Your task to perform on an android device: What's the weather like in Los Angeles? Image 0: 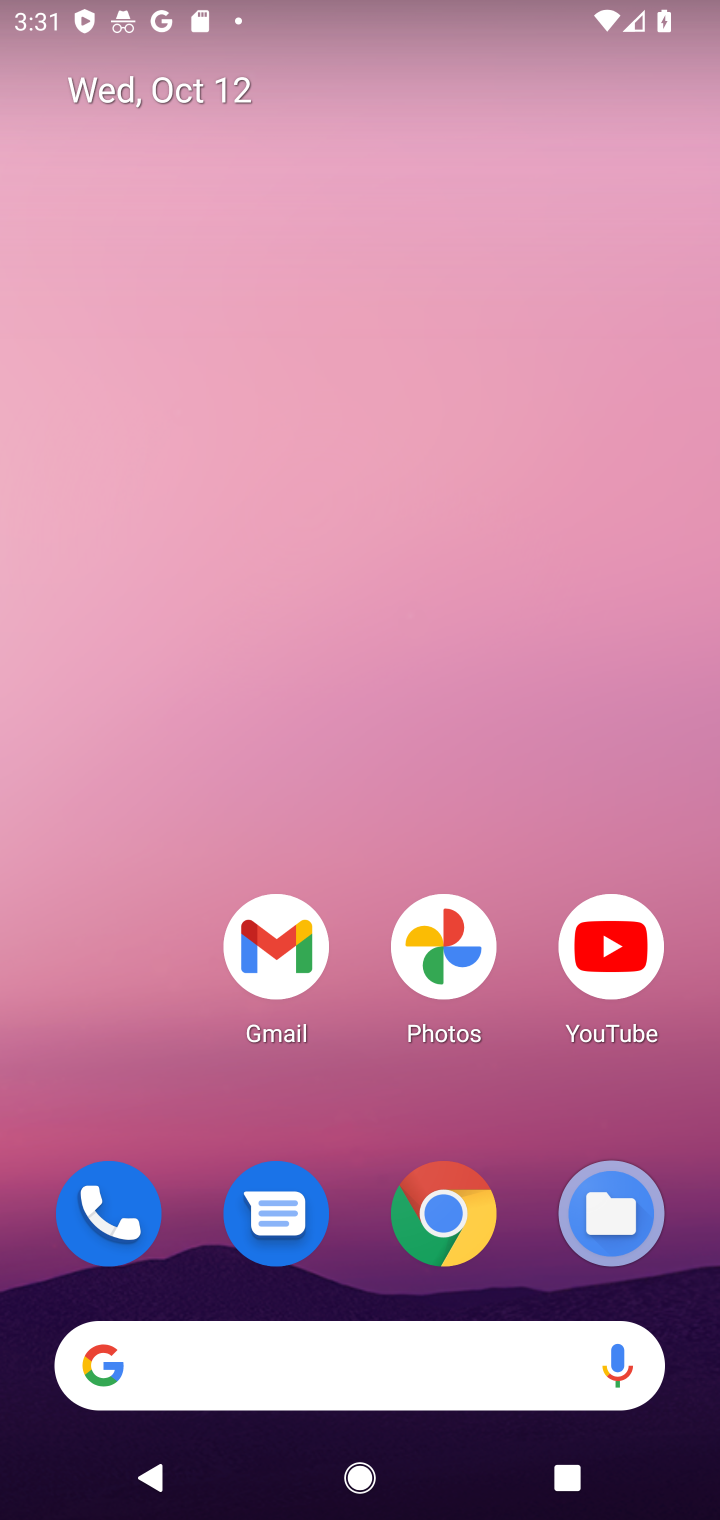
Step 0: click (395, 1382)
Your task to perform on an android device: What's the weather like in Los Angeles? Image 1: 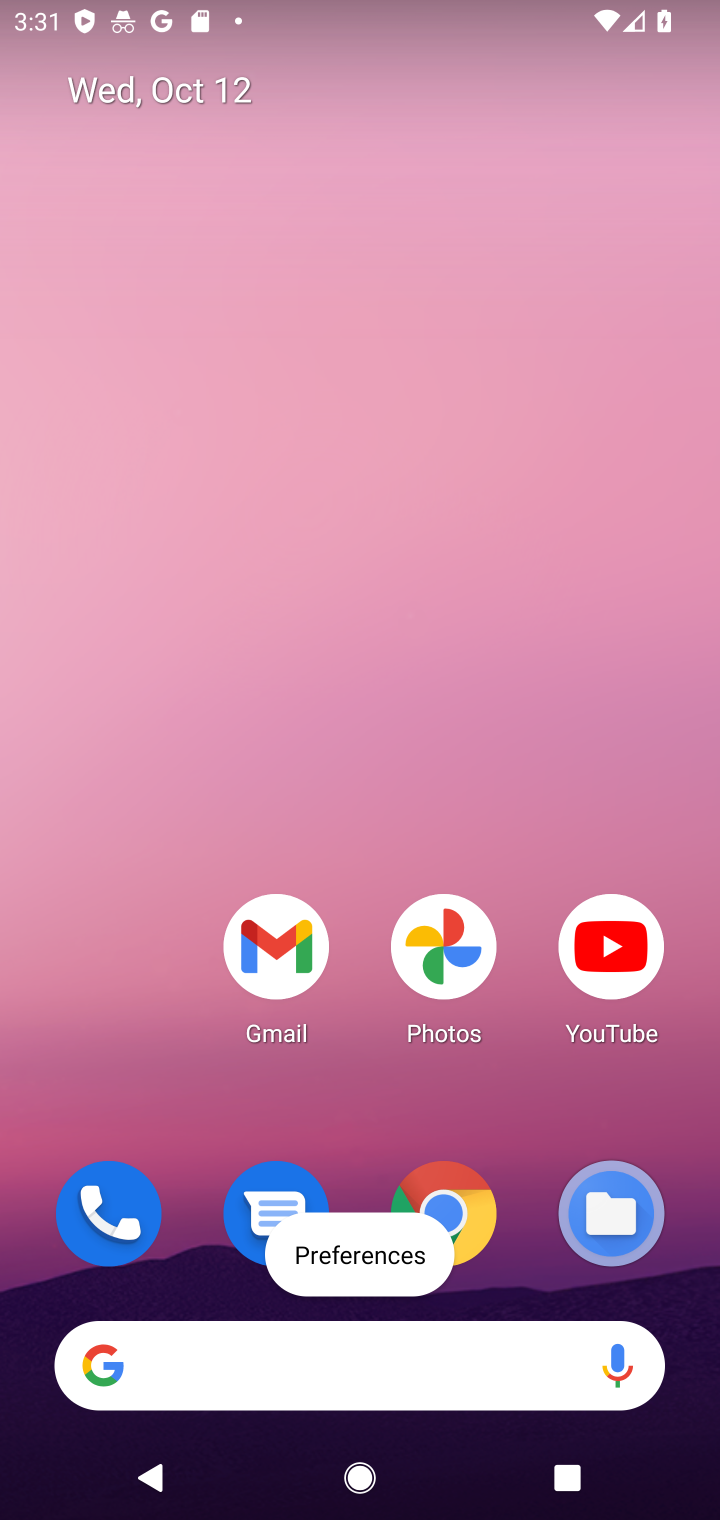
Step 1: click (322, 1375)
Your task to perform on an android device: What's the weather like in Los Angeles? Image 2: 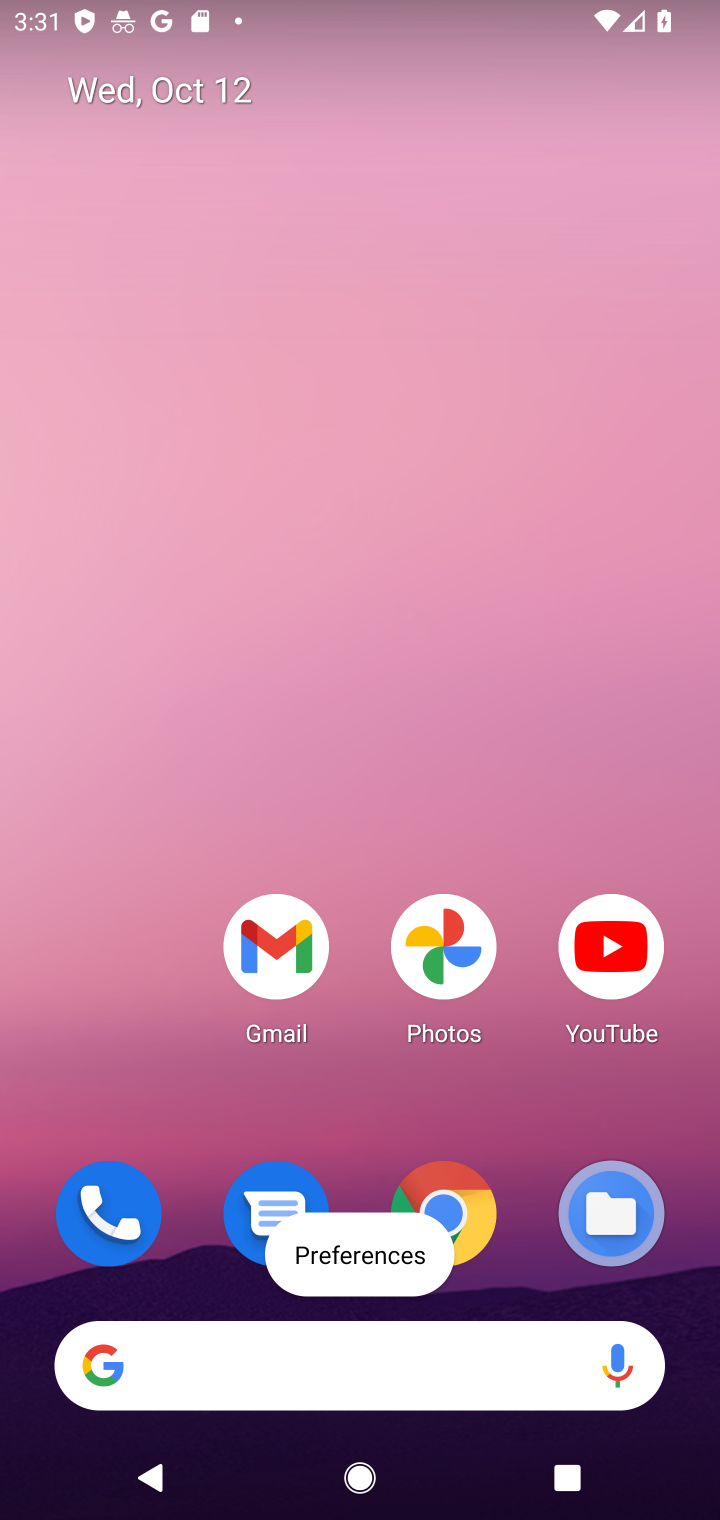
Step 2: click (249, 1375)
Your task to perform on an android device: What's the weather like in Los Angeles? Image 3: 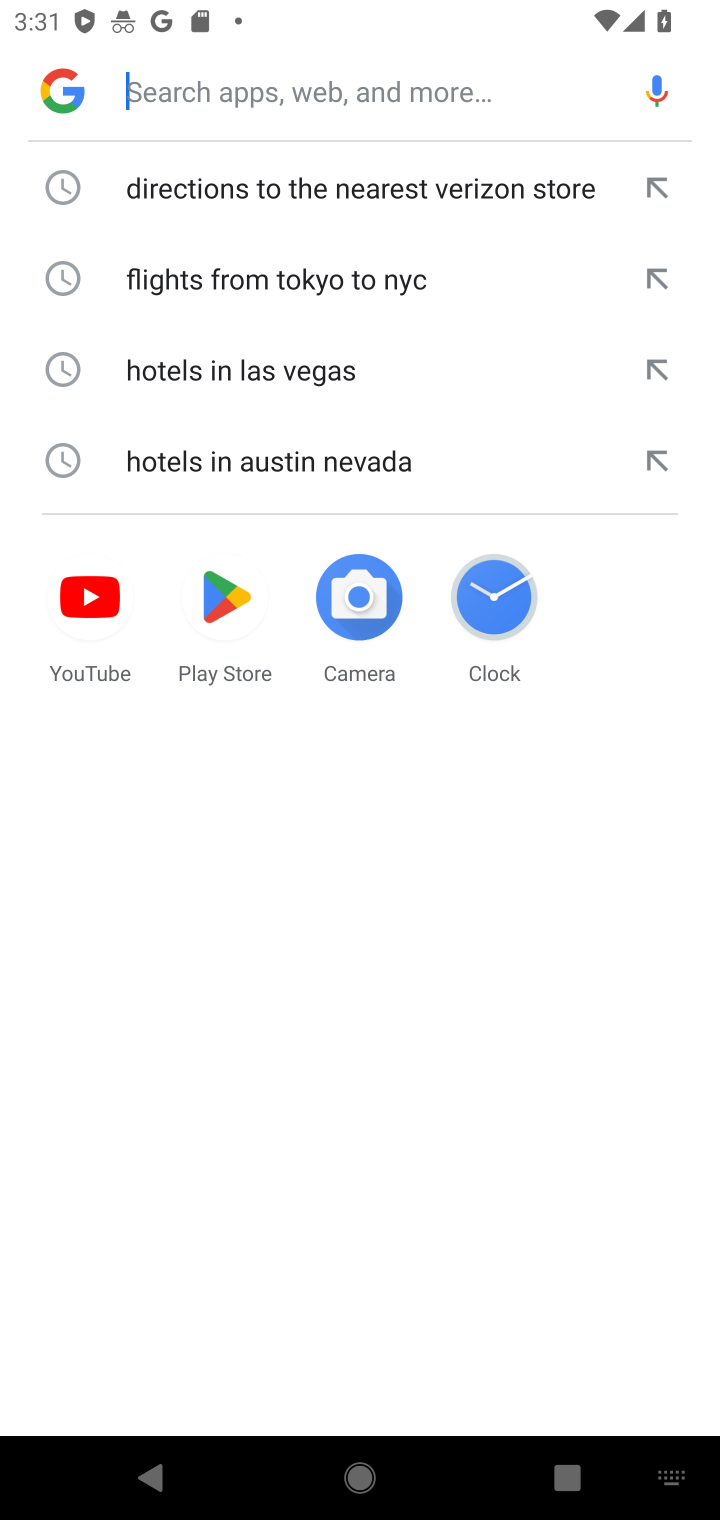
Step 3: click (158, 93)
Your task to perform on an android device: What's the weather like in Los Angeles? Image 4: 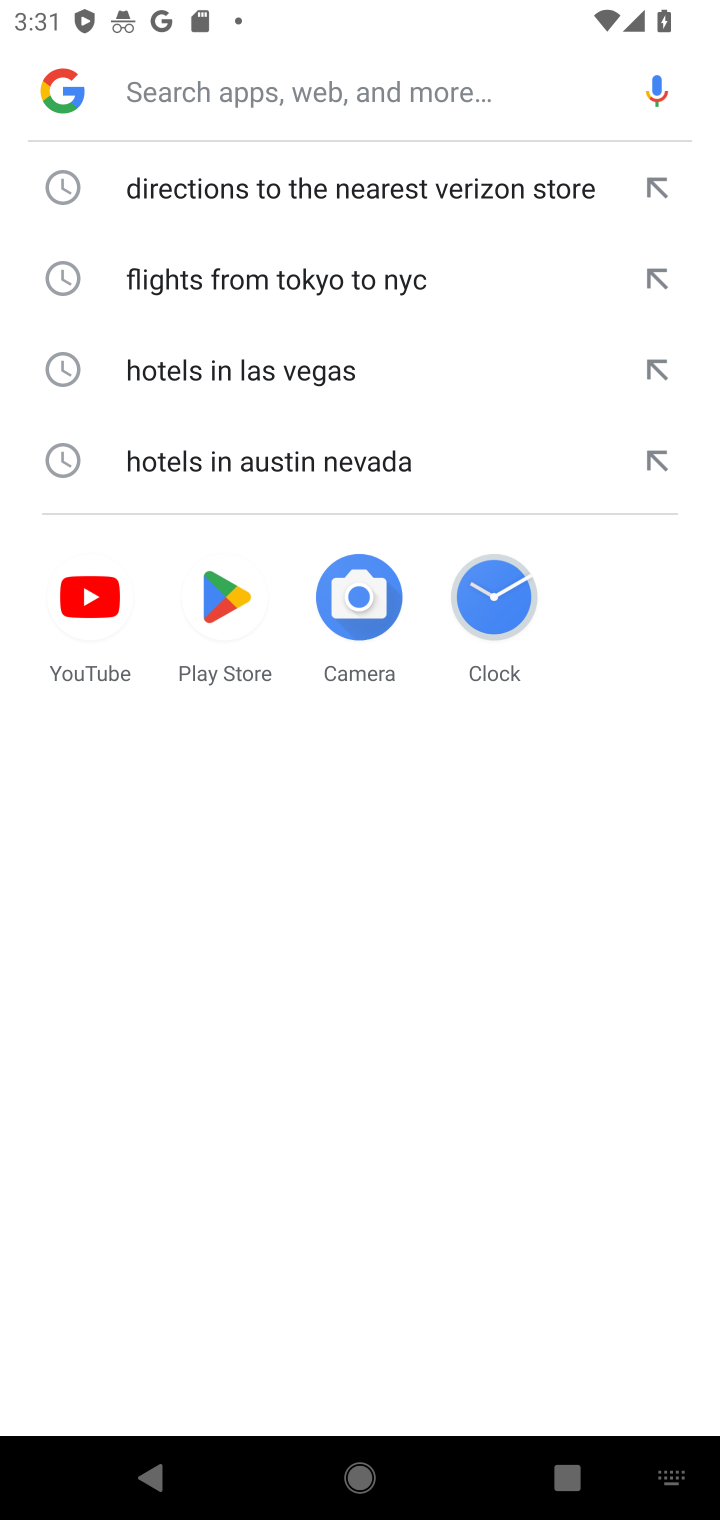
Step 4: type "What's the weather like in Los Angeles?"
Your task to perform on an android device: What's the weather like in Los Angeles? Image 5: 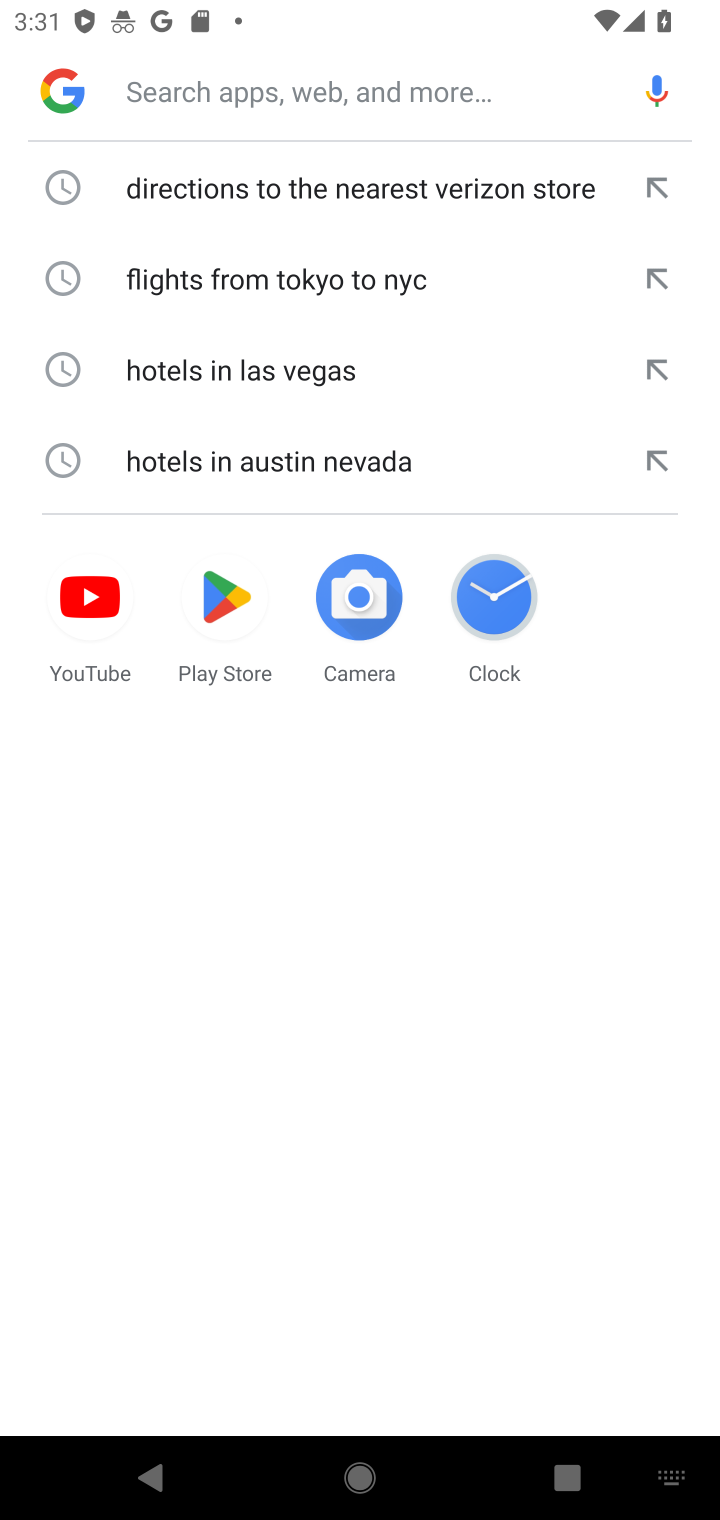
Step 5: click (522, 1005)
Your task to perform on an android device: What's the weather like in Los Angeles? Image 6: 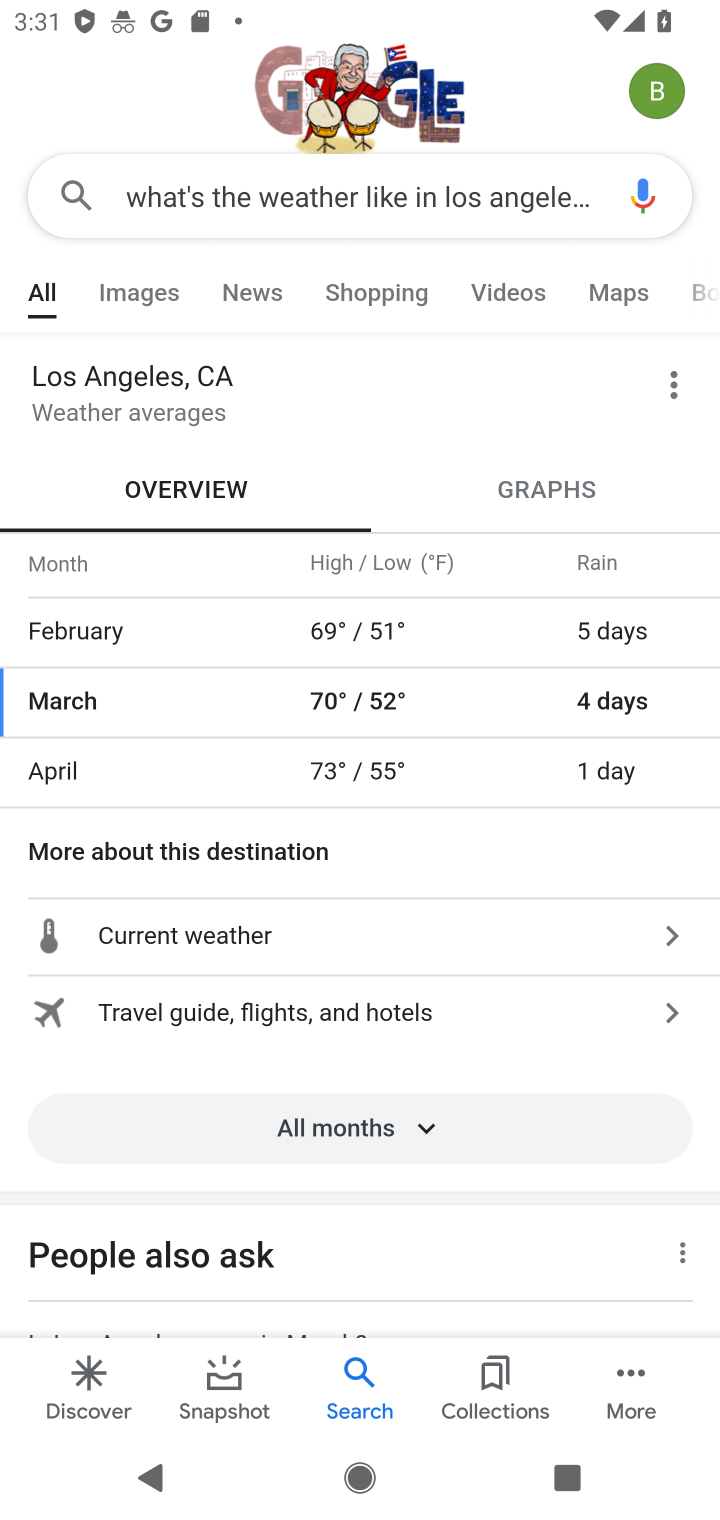
Step 6: task complete